Your task to perform on an android device: turn on bluetooth scan Image 0: 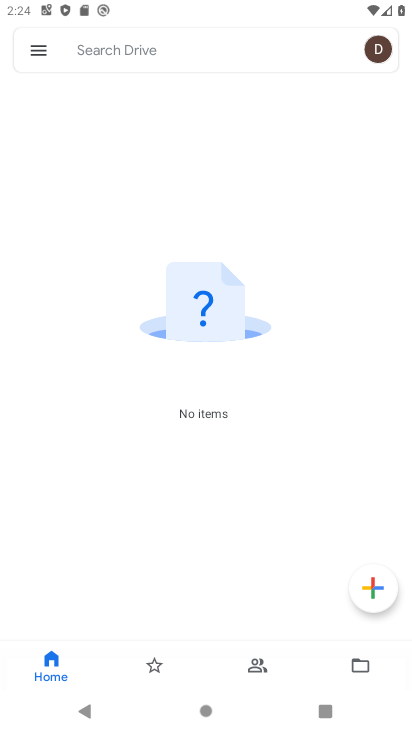
Step 0: press home button
Your task to perform on an android device: turn on bluetooth scan Image 1: 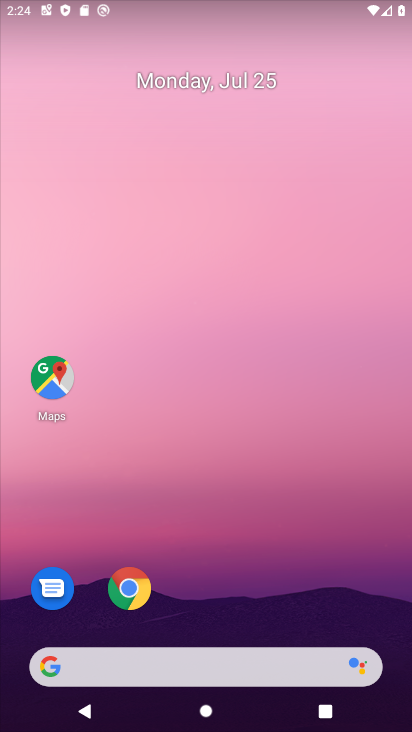
Step 1: drag from (209, 605) to (396, 170)
Your task to perform on an android device: turn on bluetooth scan Image 2: 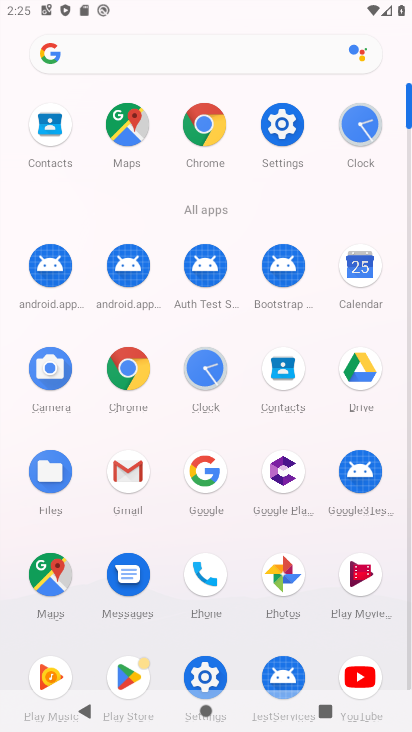
Step 2: click (298, 133)
Your task to perform on an android device: turn on bluetooth scan Image 3: 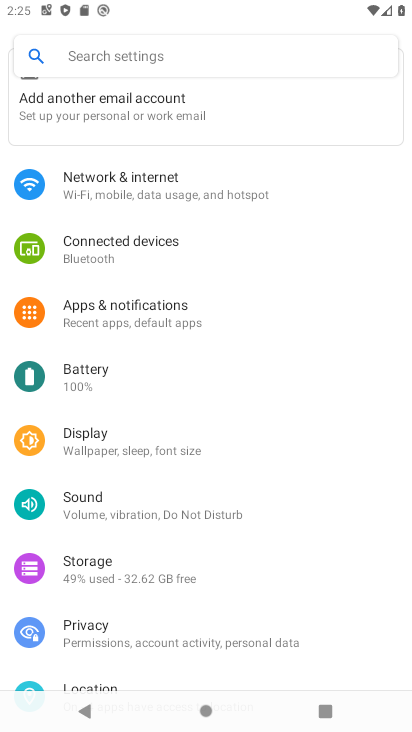
Step 3: drag from (269, 382) to (248, 434)
Your task to perform on an android device: turn on bluetooth scan Image 4: 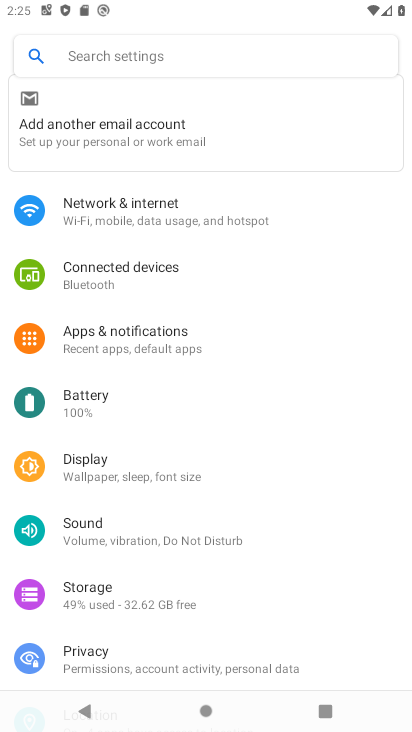
Step 4: click (245, 450)
Your task to perform on an android device: turn on bluetooth scan Image 5: 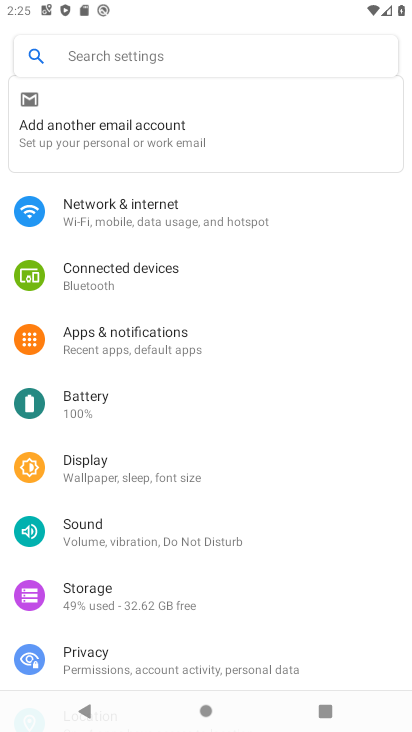
Step 5: drag from (283, 479) to (276, 561)
Your task to perform on an android device: turn on bluetooth scan Image 6: 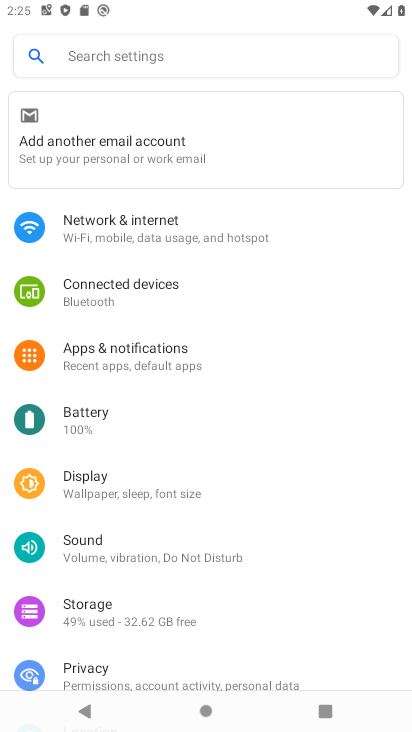
Step 6: drag from (231, 565) to (293, 367)
Your task to perform on an android device: turn on bluetooth scan Image 7: 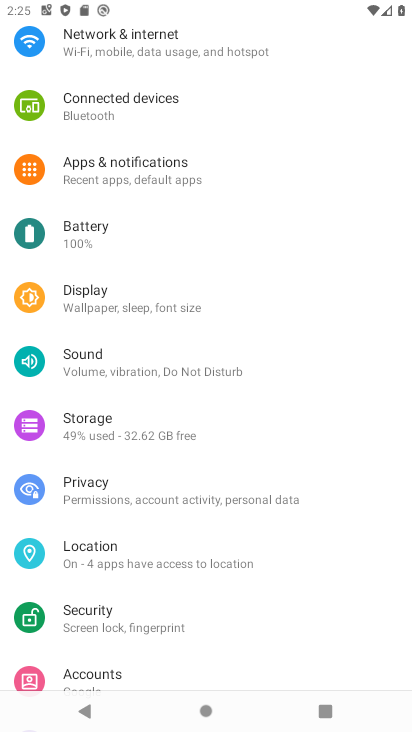
Step 7: click (114, 558)
Your task to perform on an android device: turn on bluetooth scan Image 8: 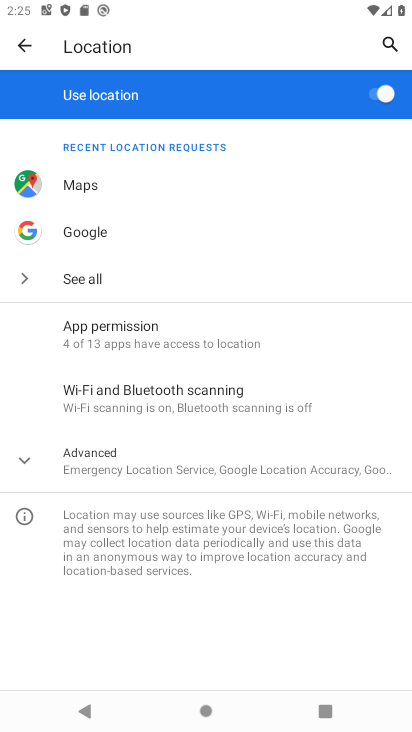
Step 8: click (120, 395)
Your task to perform on an android device: turn on bluetooth scan Image 9: 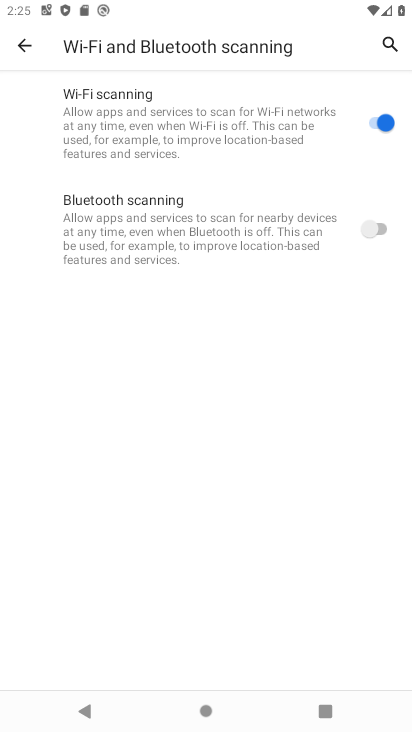
Step 9: click (377, 235)
Your task to perform on an android device: turn on bluetooth scan Image 10: 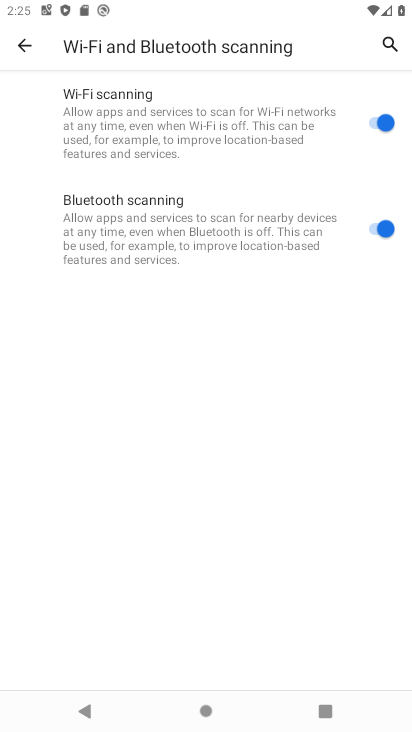
Step 10: task complete